Your task to perform on an android device: Go to location settings Image 0: 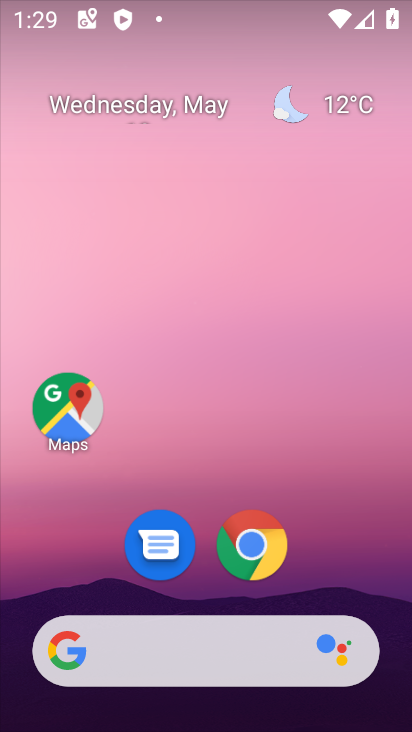
Step 0: drag from (351, 573) to (276, 27)
Your task to perform on an android device: Go to location settings Image 1: 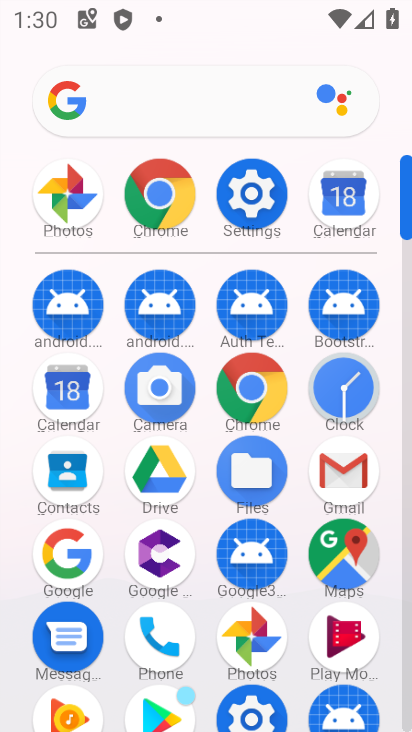
Step 1: click (264, 182)
Your task to perform on an android device: Go to location settings Image 2: 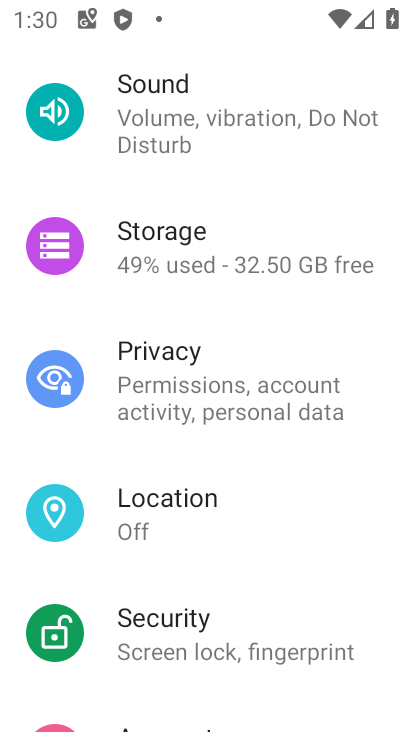
Step 2: click (222, 510)
Your task to perform on an android device: Go to location settings Image 3: 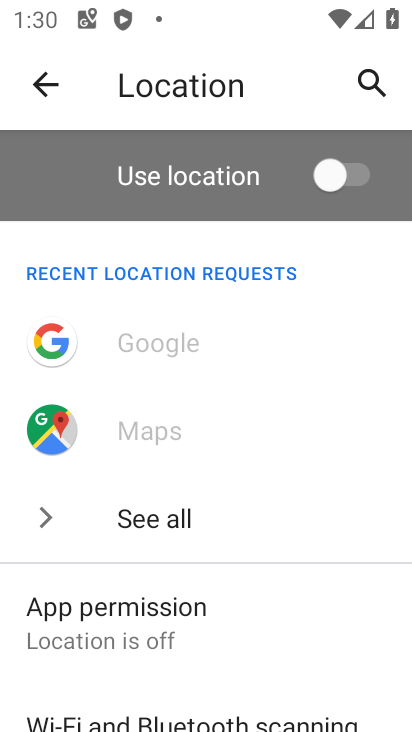
Step 3: task complete